Your task to perform on an android device: Go to eBay Image 0: 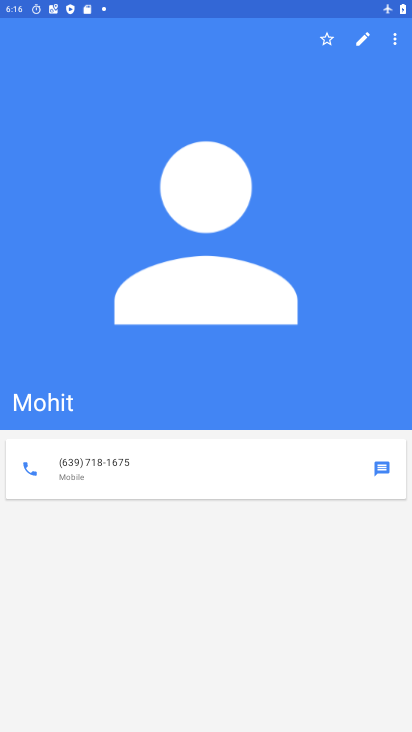
Step 0: press home button
Your task to perform on an android device: Go to eBay Image 1: 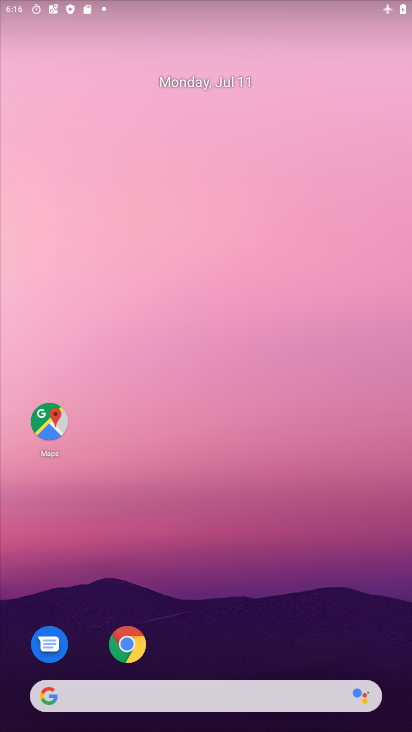
Step 1: drag from (209, 663) to (253, 30)
Your task to perform on an android device: Go to eBay Image 2: 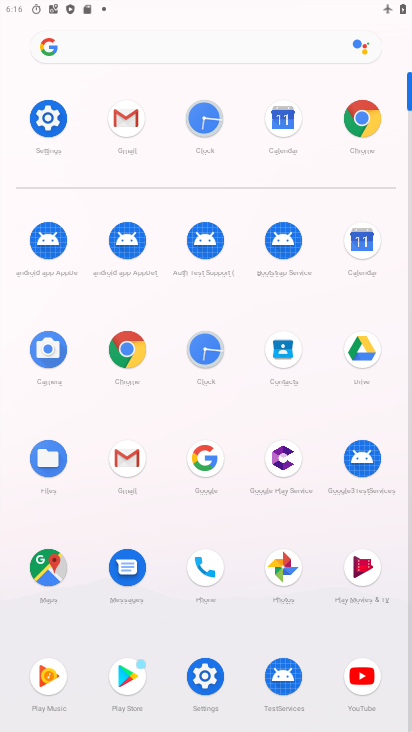
Step 2: click (133, 346)
Your task to perform on an android device: Go to eBay Image 3: 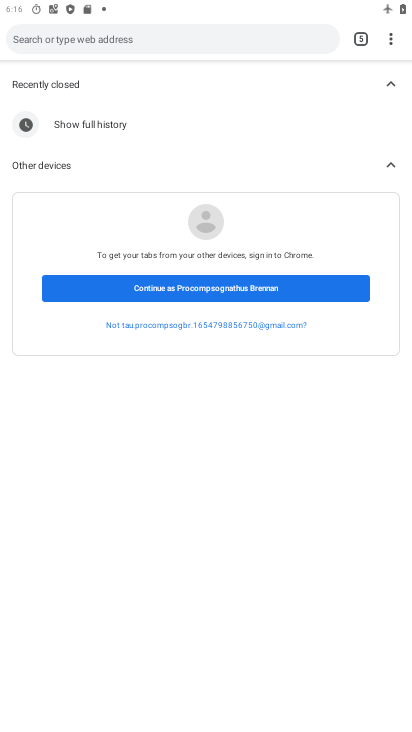
Step 3: press back button
Your task to perform on an android device: Go to eBay Image 4: 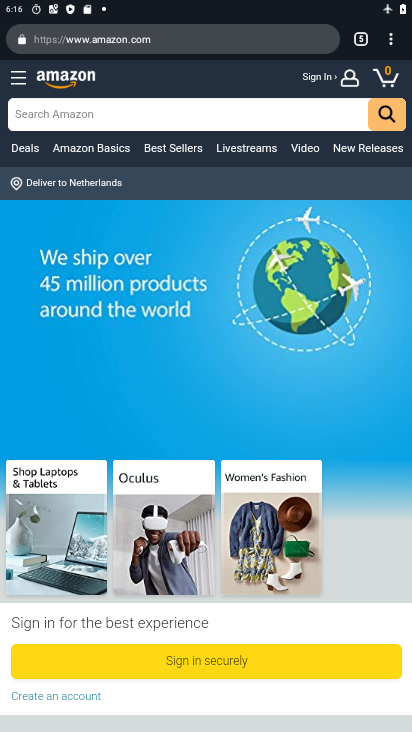
Step 4: click (275, 30)
Your task to perform on an android device: Go to eBay Image 5: 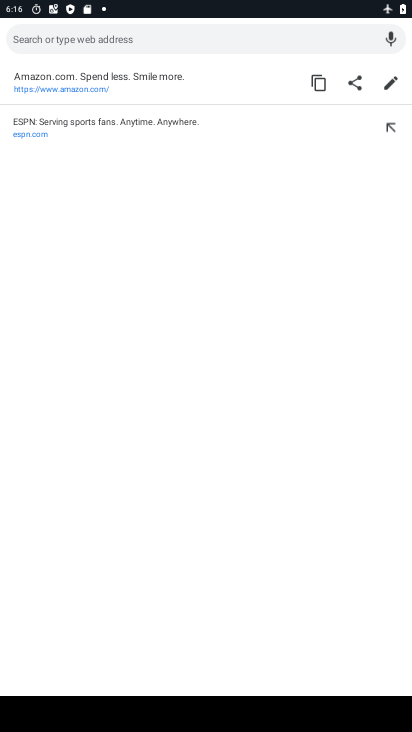
Step 5: type "ebay"
Your task to perform on an android device: Go to eBay Image 6: 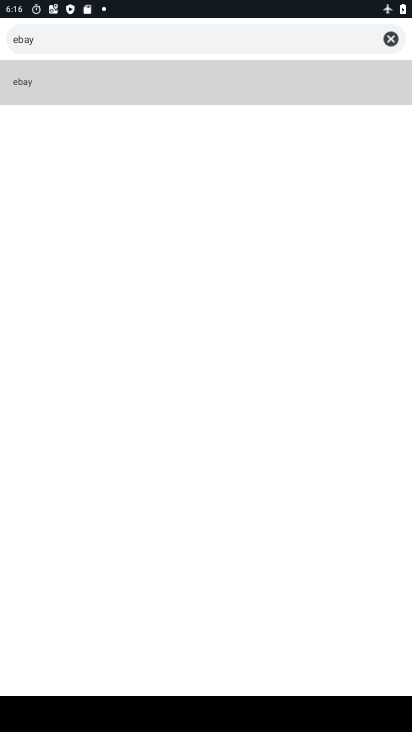
Step 6: click (44, 83)
Your task to perform on an android device: Go to eBay Image 7: 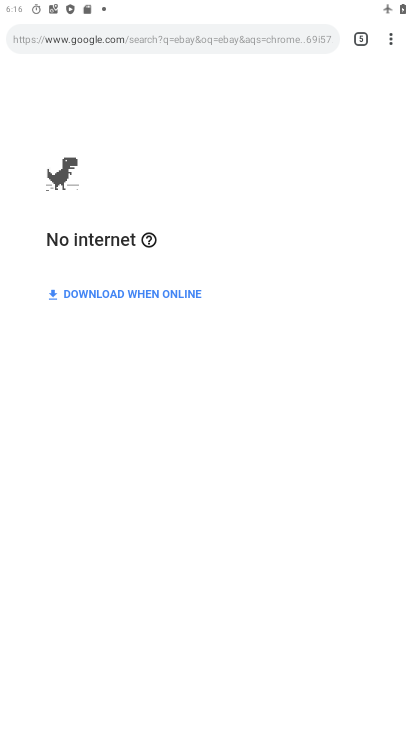
Step 7: task complete